Your task to perform on an android device: Open wifi settings Image 0: 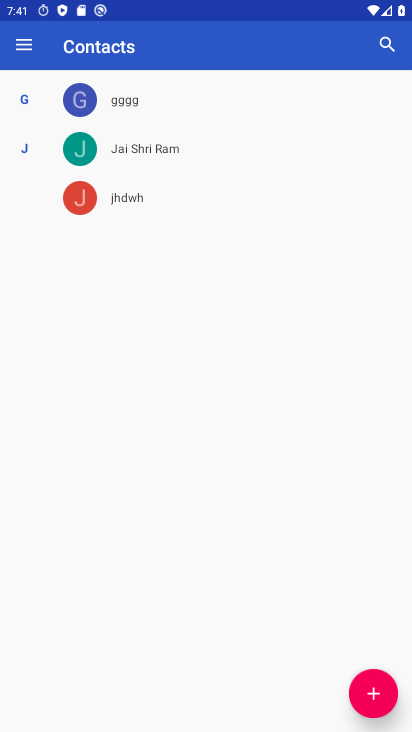
Step 0: press home button
Your task to perform on an android device: Open wifi settings Image 1: 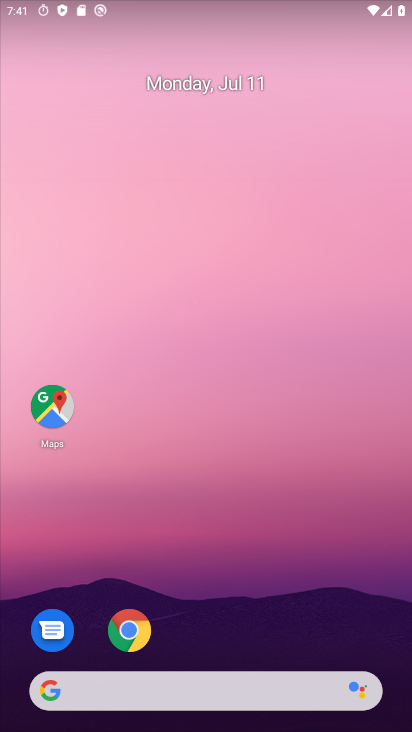
Step 1: drag from (212, 681) to (344, 152)
Your task to perform on an android device: Open wifi settings Image 2: 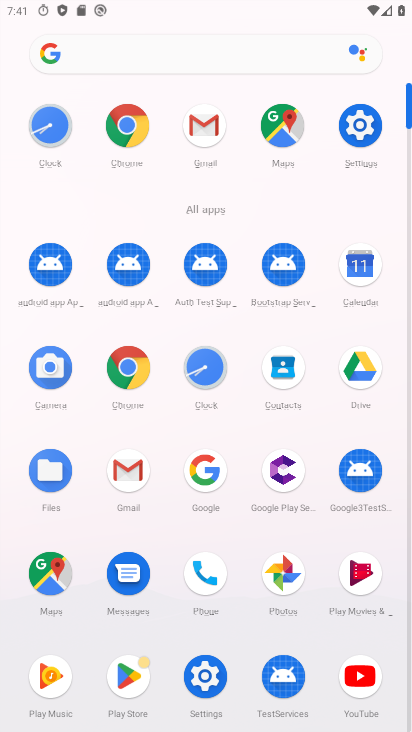
Step 2: click (371, 129)
Your task to perform on an android device: Open wifi settings Image 3: 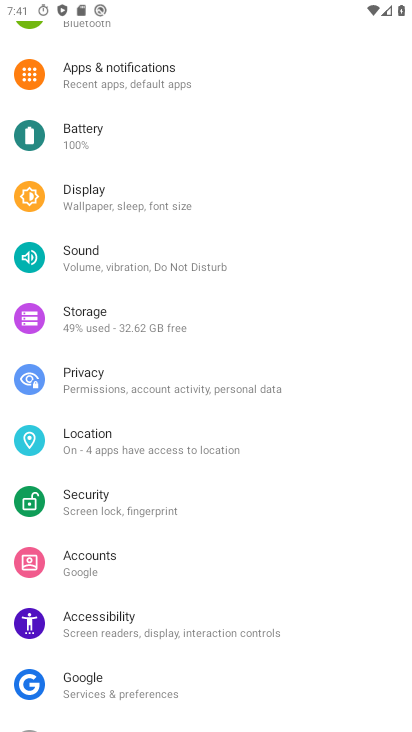
Step 3: drag from (318, 79) to (160, 424)
Your task to perform on an android device: Open wifi settings Image 4: 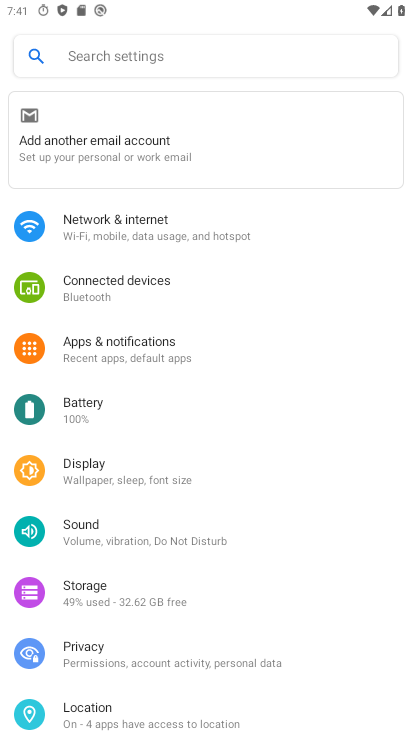
Step 4: click (164, 238)
Your task to perform on an android device: Open wifi settings Image 5: 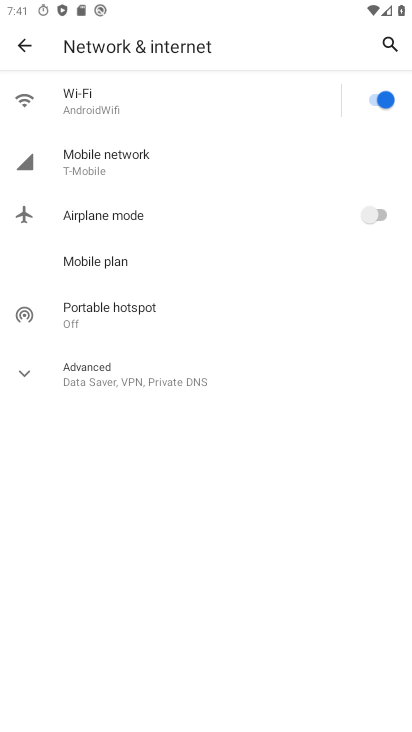
Step 5: click (84, 107)
Your task to perform on an android device: Open wifi settings Image 6: 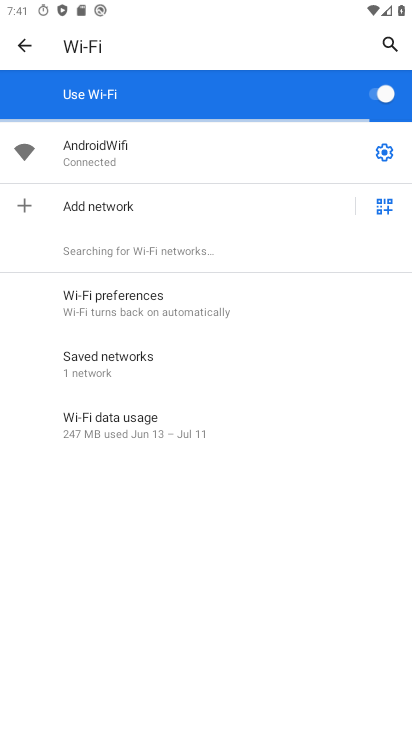
Step 6: task complete